Your task to perform on an android device: Open notification settings Image 0: 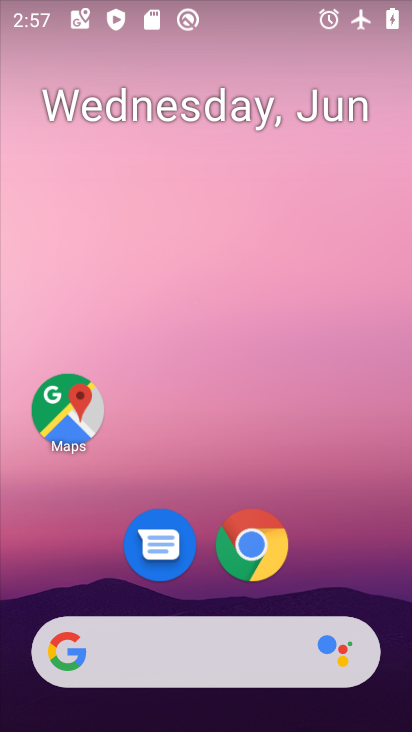
Step 0: drag from (324, 448) to (309, 158)
Your task to perform on an android device: Open notification settings Image 1: 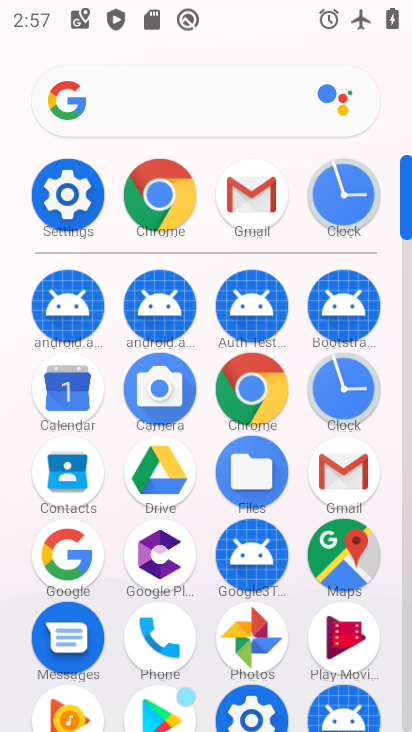
Step 1: click (77, 198)
Your task to perform on an android device: Open notification settings Image 2: 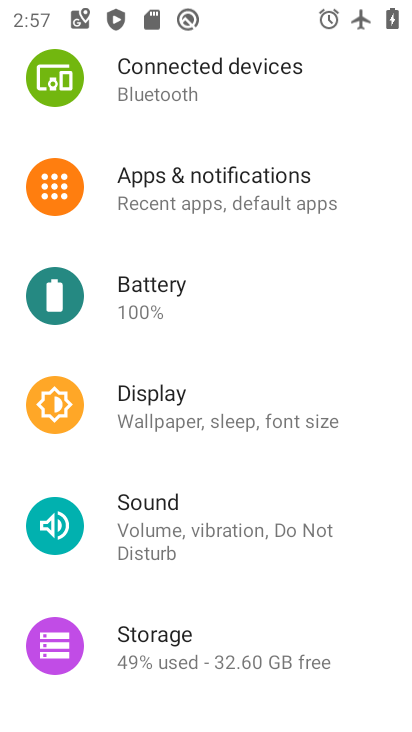
Step 2: click (233, 175)
Your task to perform on an android device: Open notification settings Image 3: 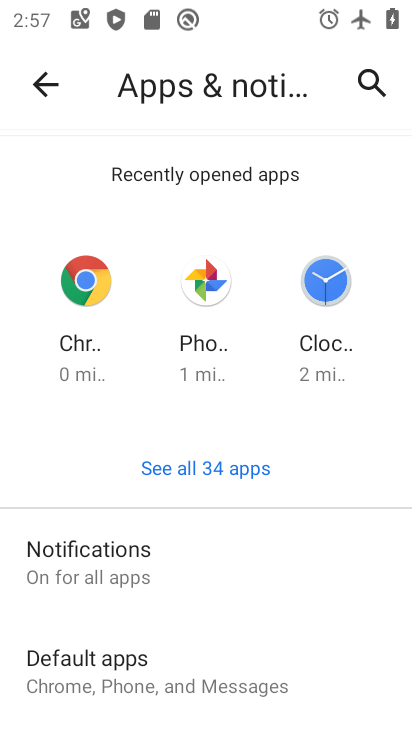
Step 3: drag from (229, 624) to (242, 224)
Your task to perform on an android device: Open notification settings Image 4: 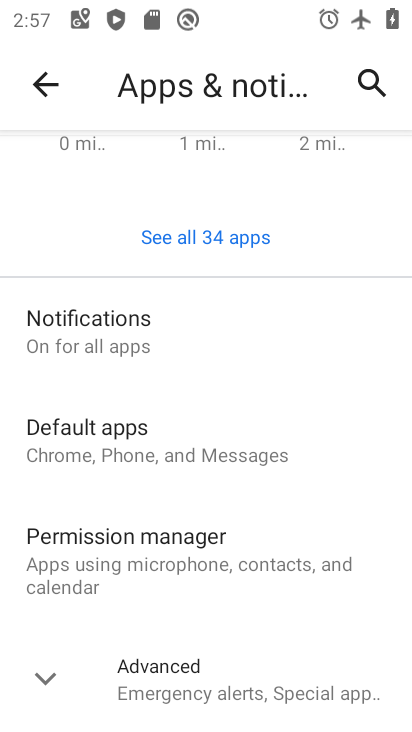
Step 4: click (126, 330)
Your task to perform on an android device: Open notification settings Image 5: 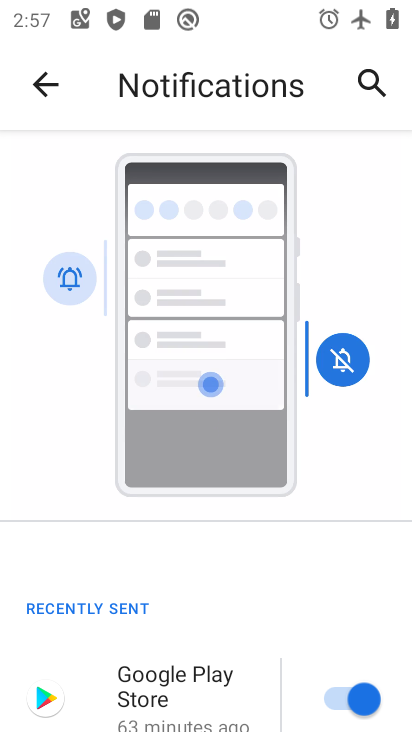
Step 5: task complete